Your task to perform on an android device: make emails show in primary in the gmail app Image 0: 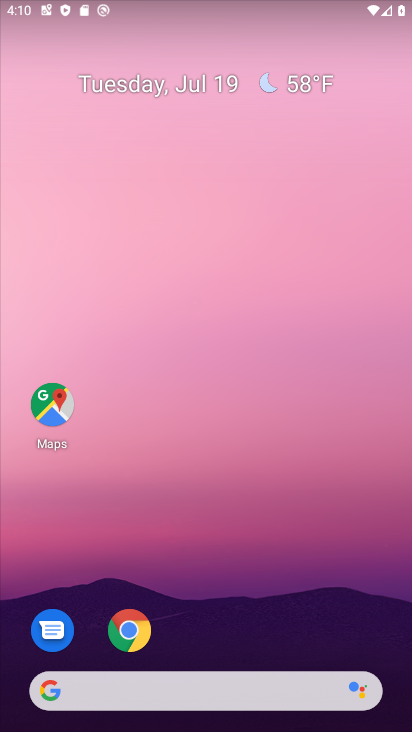
Step 0: drag from (21, 686) to (235, 308)
Your task to perform on an android device: make emails show in primary in the gmail app Image 1: 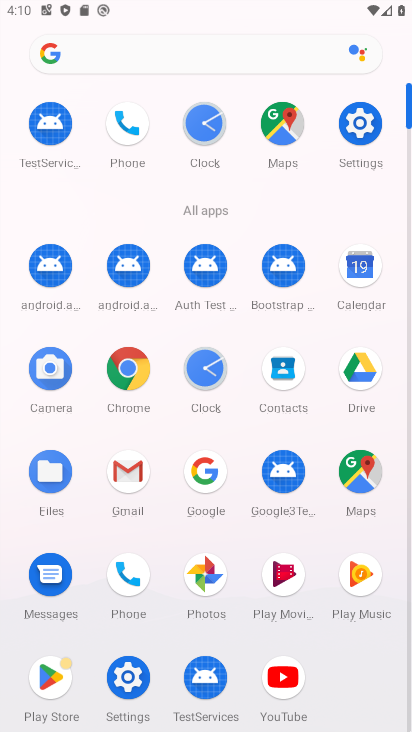
Step 1: click (139, 480)
Your task to perform on an android device: make emails show in primary in the gmail app Image 2: 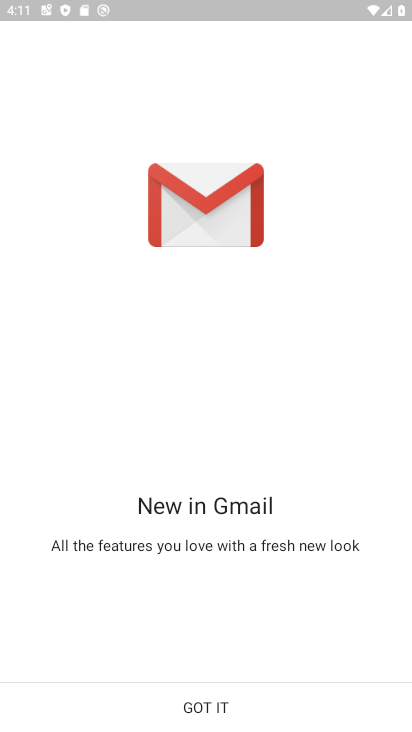
Step 2: click (185, 699)
Your task to perform on an android device: make emails show in primary in the gmail app Image 3: 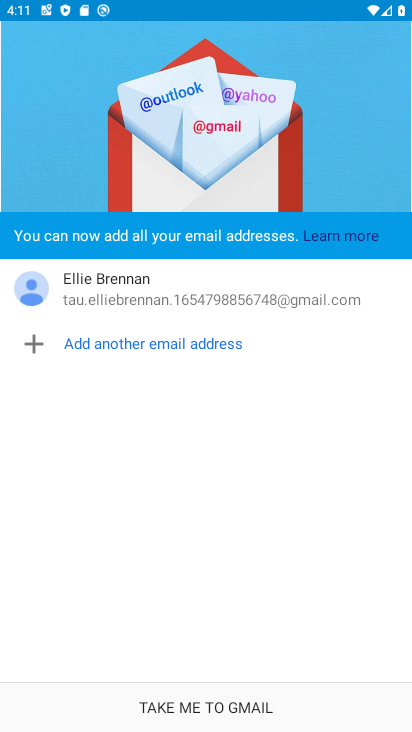
Step 3: click (185, 699)
Your task to perform on an android device: make emails show in primary in the gmail app Image 4: 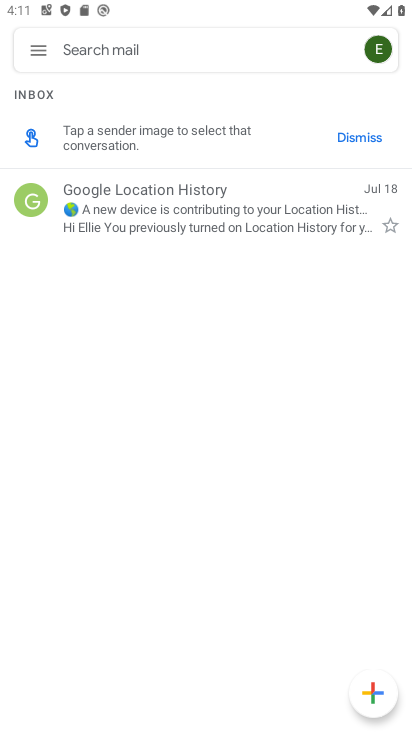
Step 4: click (21, 53)
Your task to perform on an android device: make emails show in primary in the gmail app Image 5: 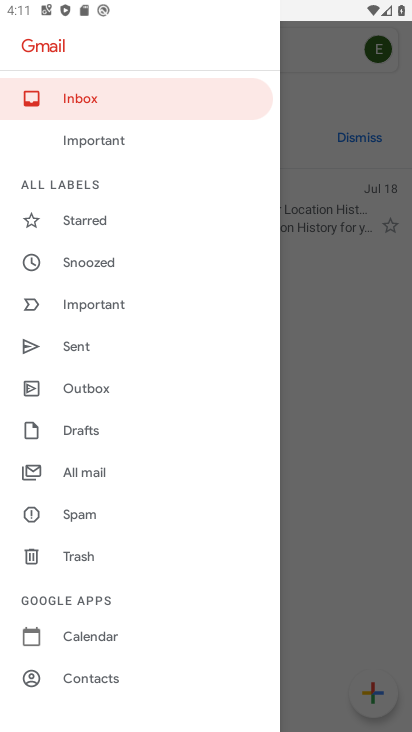
Step 5: click (47, 101)
Your task to perform on an android device: make emails show in primary in the gmail app Image 6: 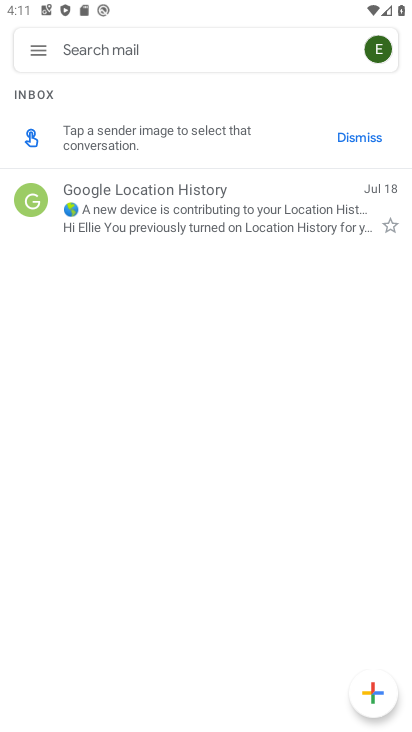
Step 6: task complete